Your task to perform on an android device: open app "Move to iOS" (install if not already installed) and go to login screen Image 0: 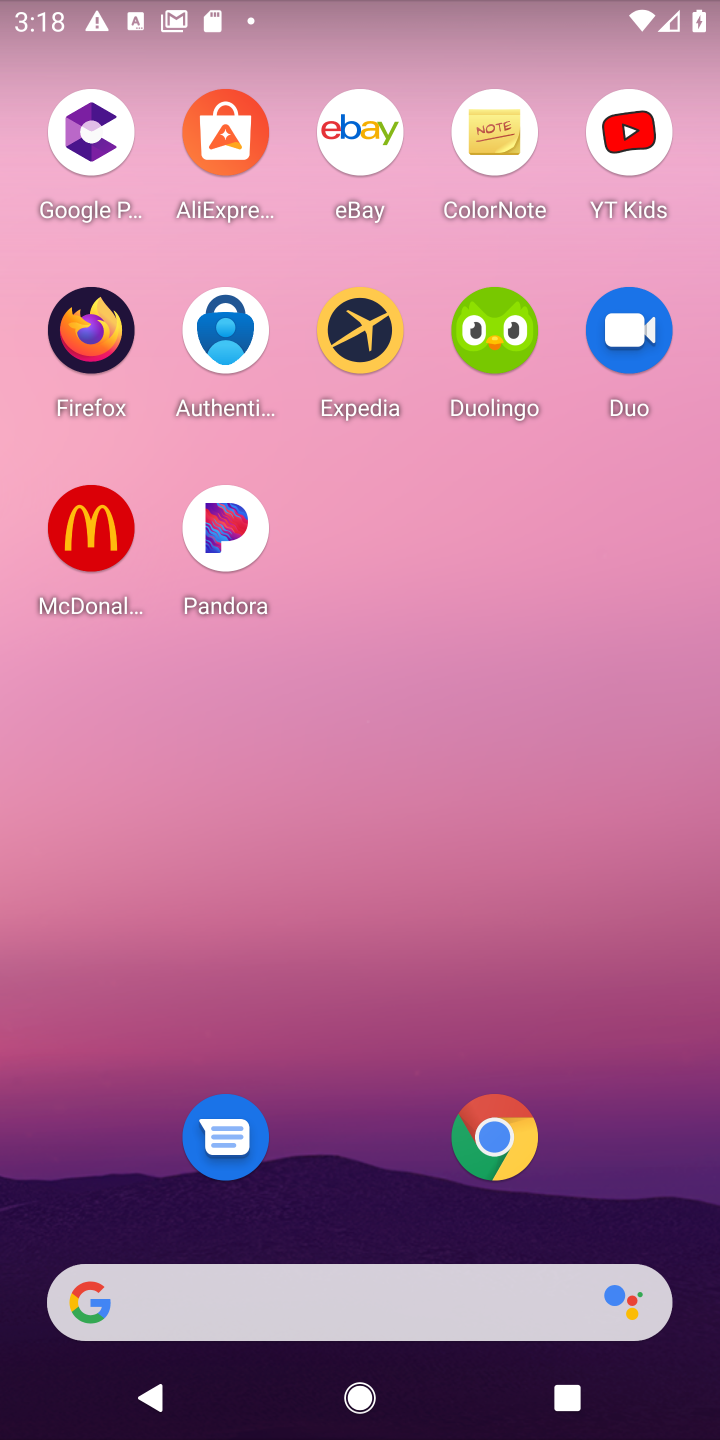
Step 0: drag from (364, 978) to (458, 116)
Your task to perform on an android device: open app "Move to iOS" (install if not already installed) and go to login screen Image 1: 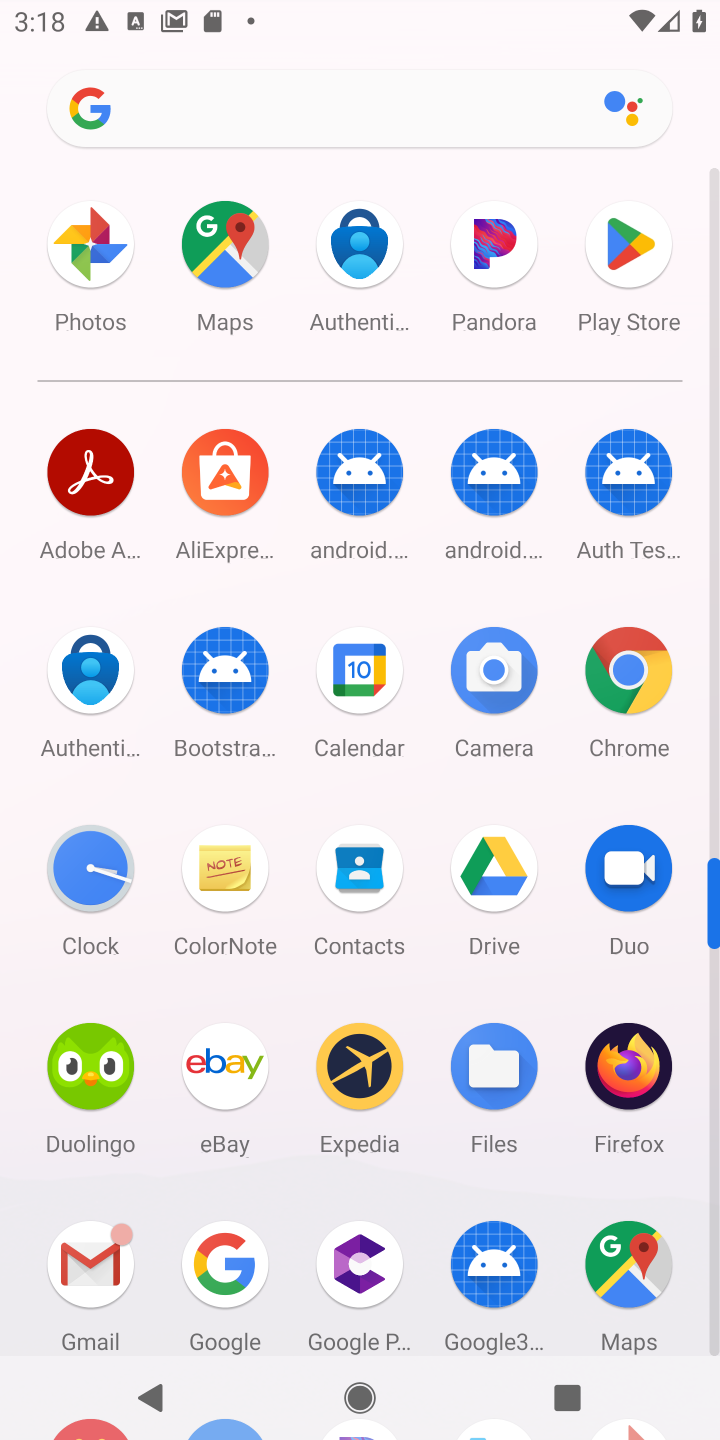
Step 1: click (645, 344)
Your task to perform on an android device: open app "Move to iOS" (install if not already installed) and go to login screen Image 2: 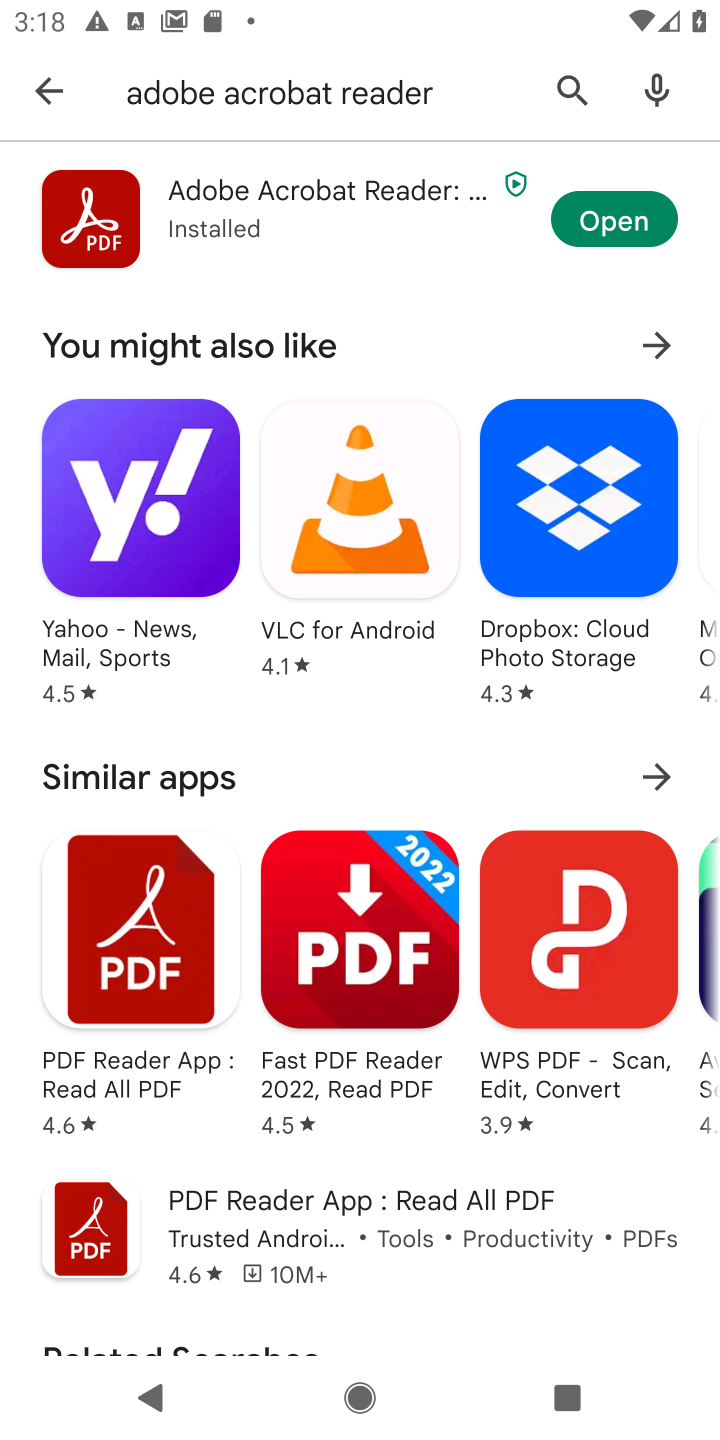
Step 2: click (380, 177)
Your task to perform on an android device: open app "Move to iOS" (install if not already installed) and go to login screen Image 3: 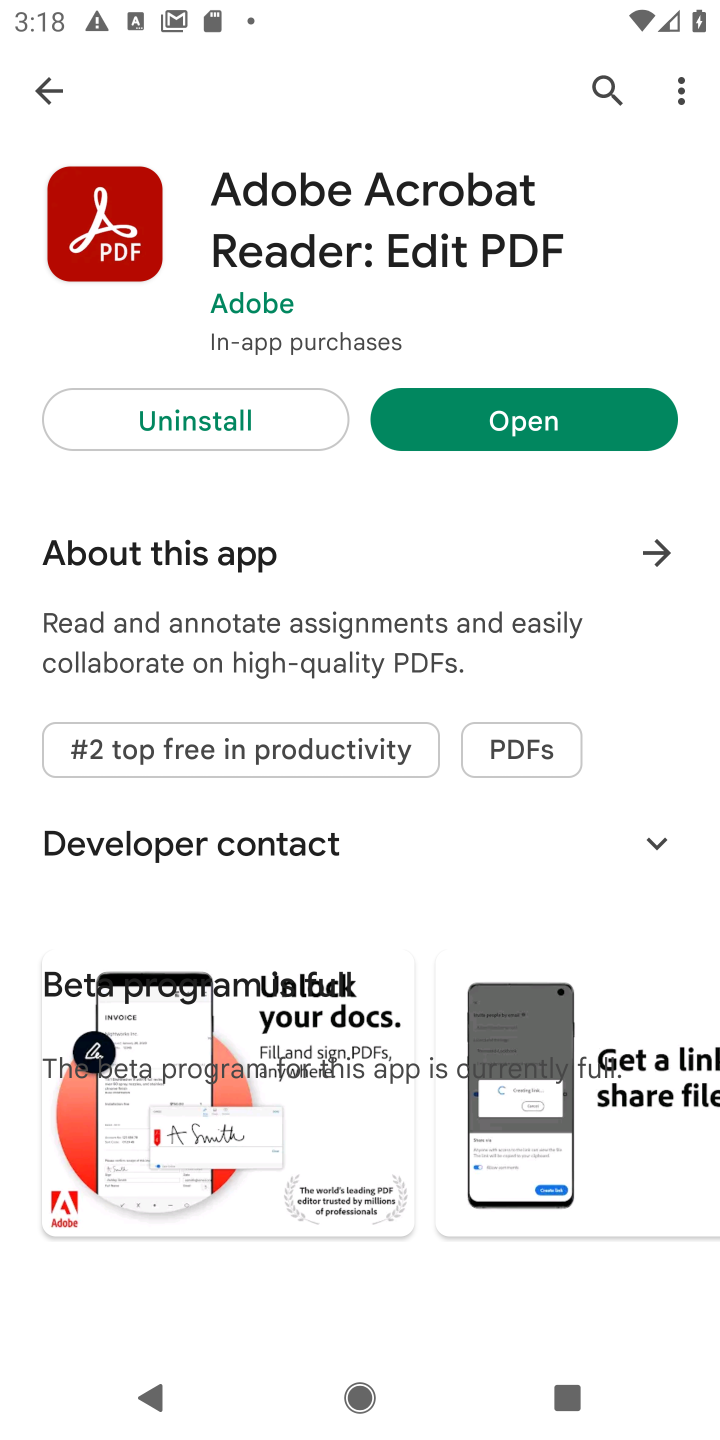
Step 3: click (372, 95)
Your task to perform on an android device: open app "Move to iOS" (install if not already installed) and go to login screen Image 4: 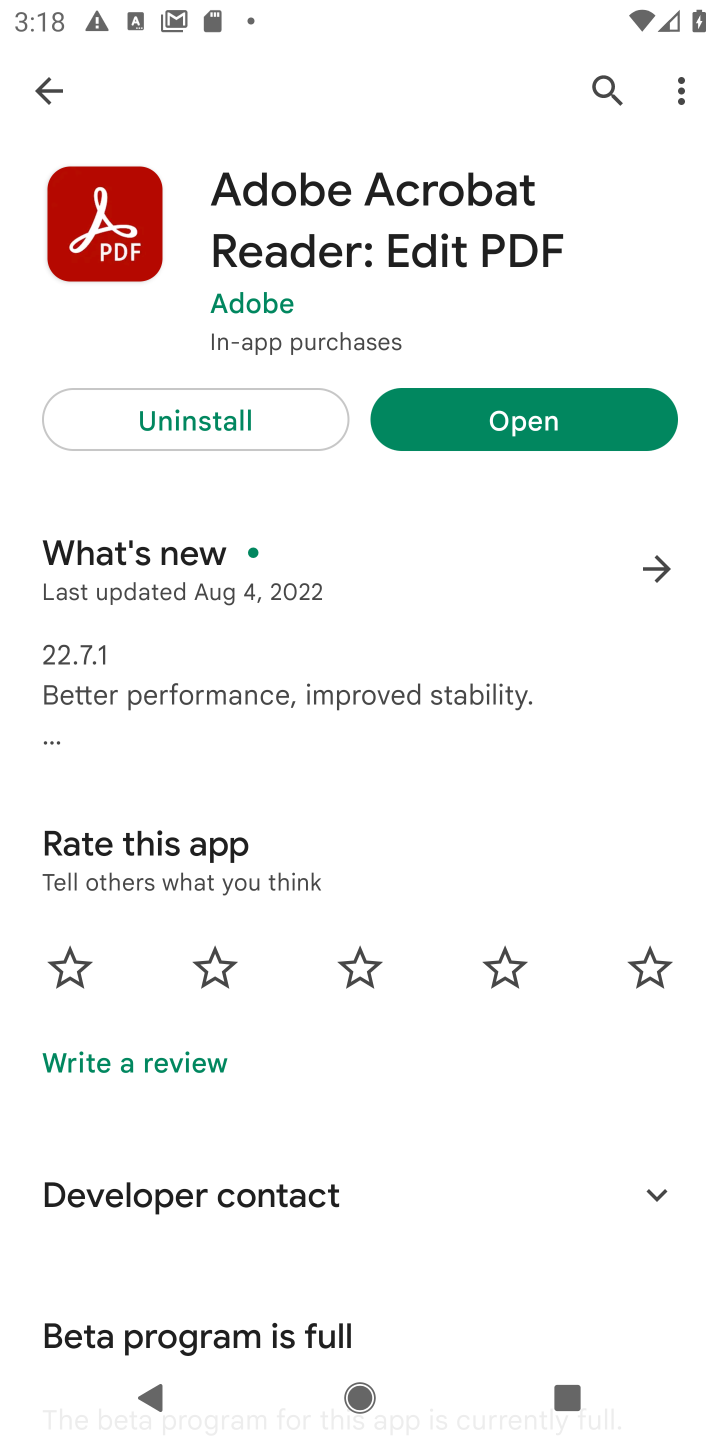
Step 4: click (52, 87)
Your task to perform on an android device: open app "Move to iOS" (install if not already installed) and go to login screen Image 5: 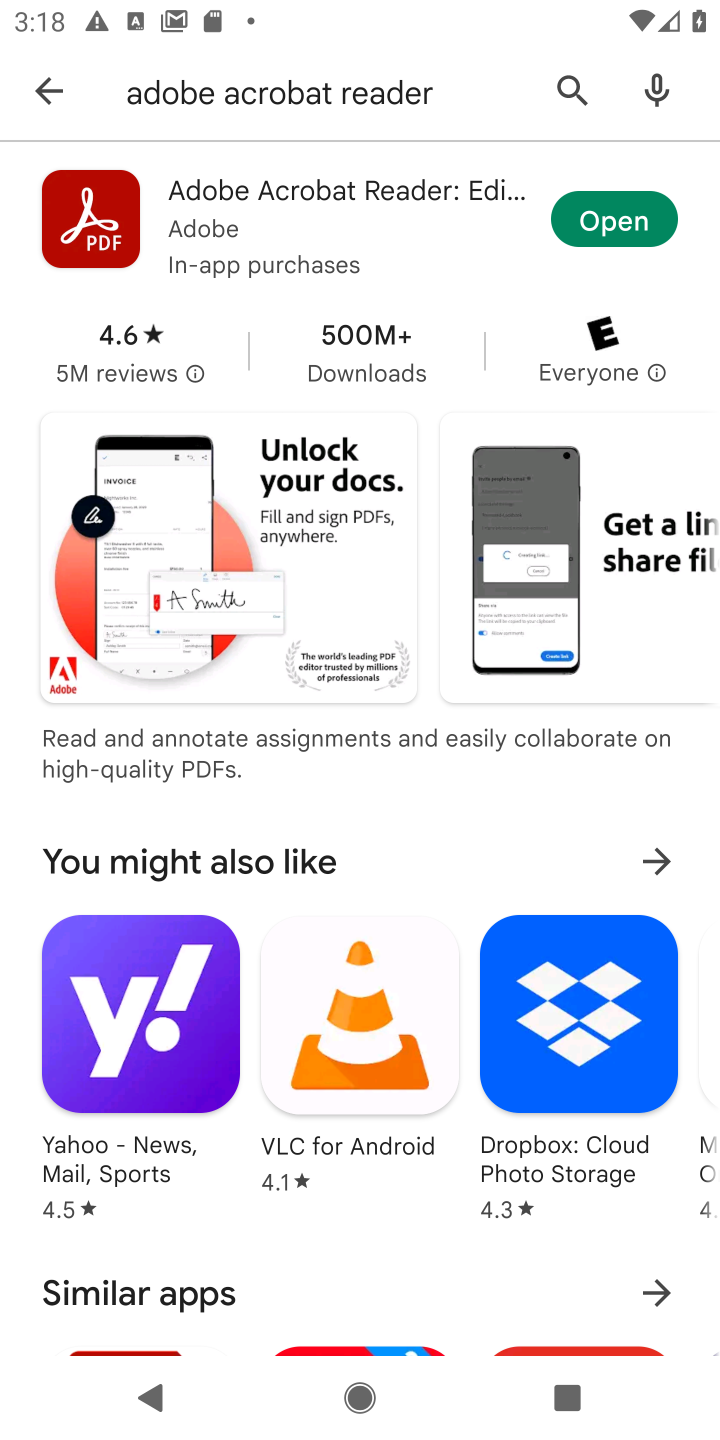
Step 5: click (243, 89)
Your task to perform on an android device: open app "Move to iOS" (install if not already installed) and go to login screen Image 6: 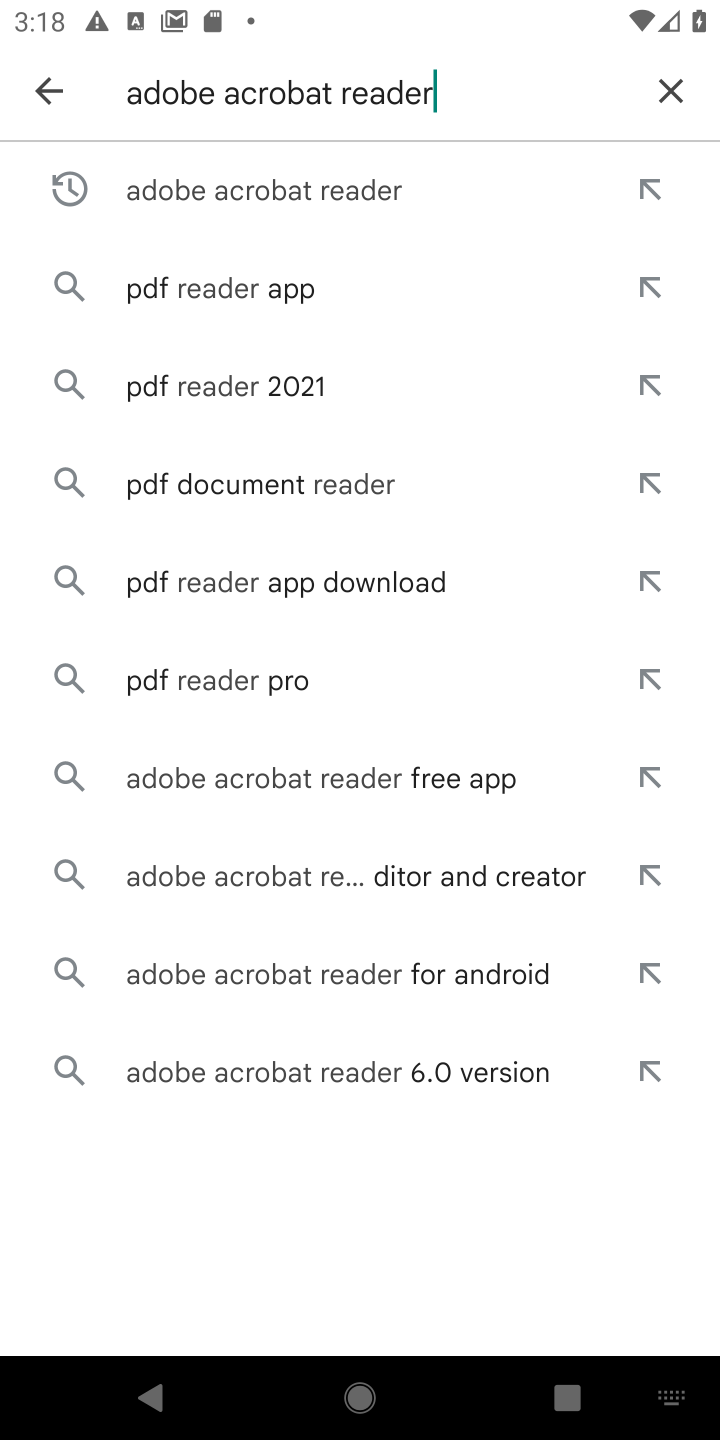
Step 6: click (665, 91)
Your task to perform on an android device: open app "Move to iOS" (install if not already installed) and go to login screen Image 7: 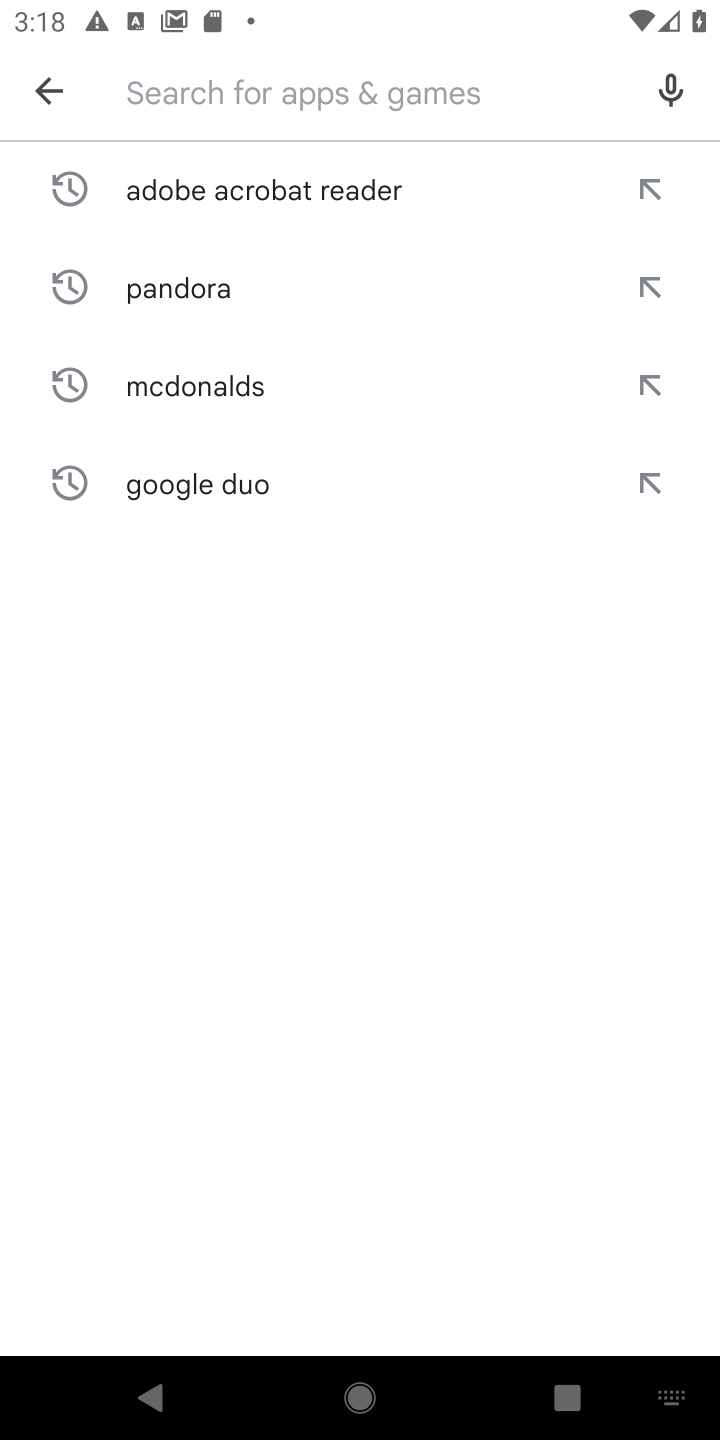
Step 7: type "move to IOS"
Your task to perform on an android device: open app "Move to iOS" (install if not already installed) and go to login screen Image 8: 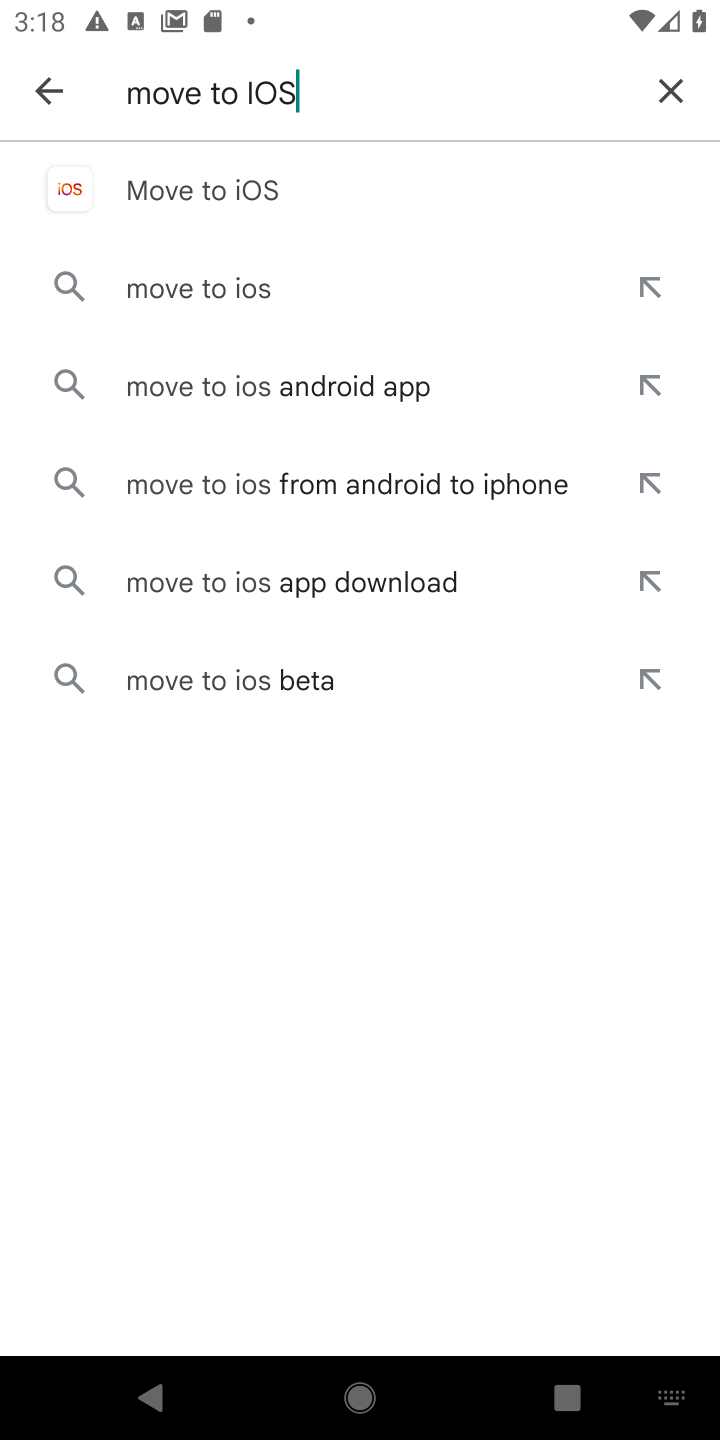
Step 8: click (264, 198)
Your task to perform on an android device: open app "Move to iOS" (install if not already installed) and go to login screen Image 9: 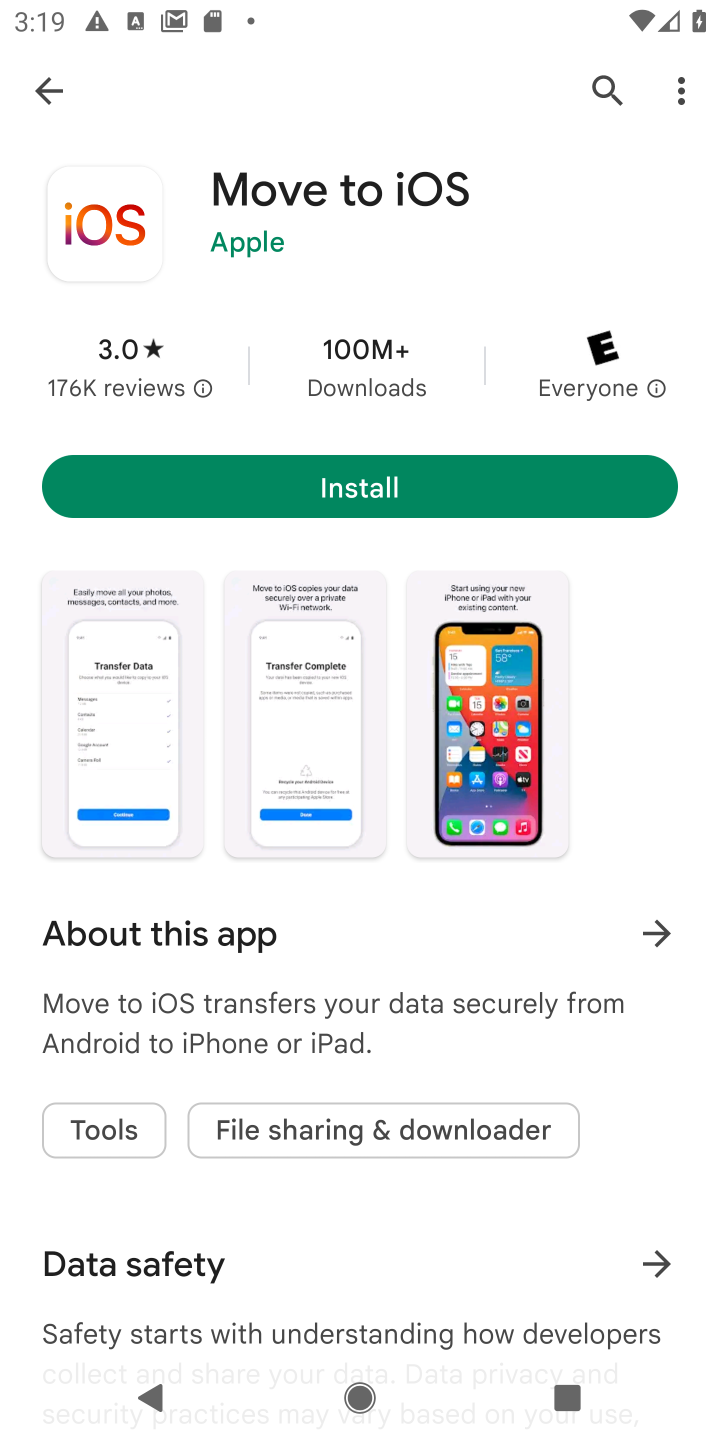
Step 9: click (426, 486)
Your task to perform on an android device: open app "Move to iOS" (install if not already installed) and go to login screen Image 10: 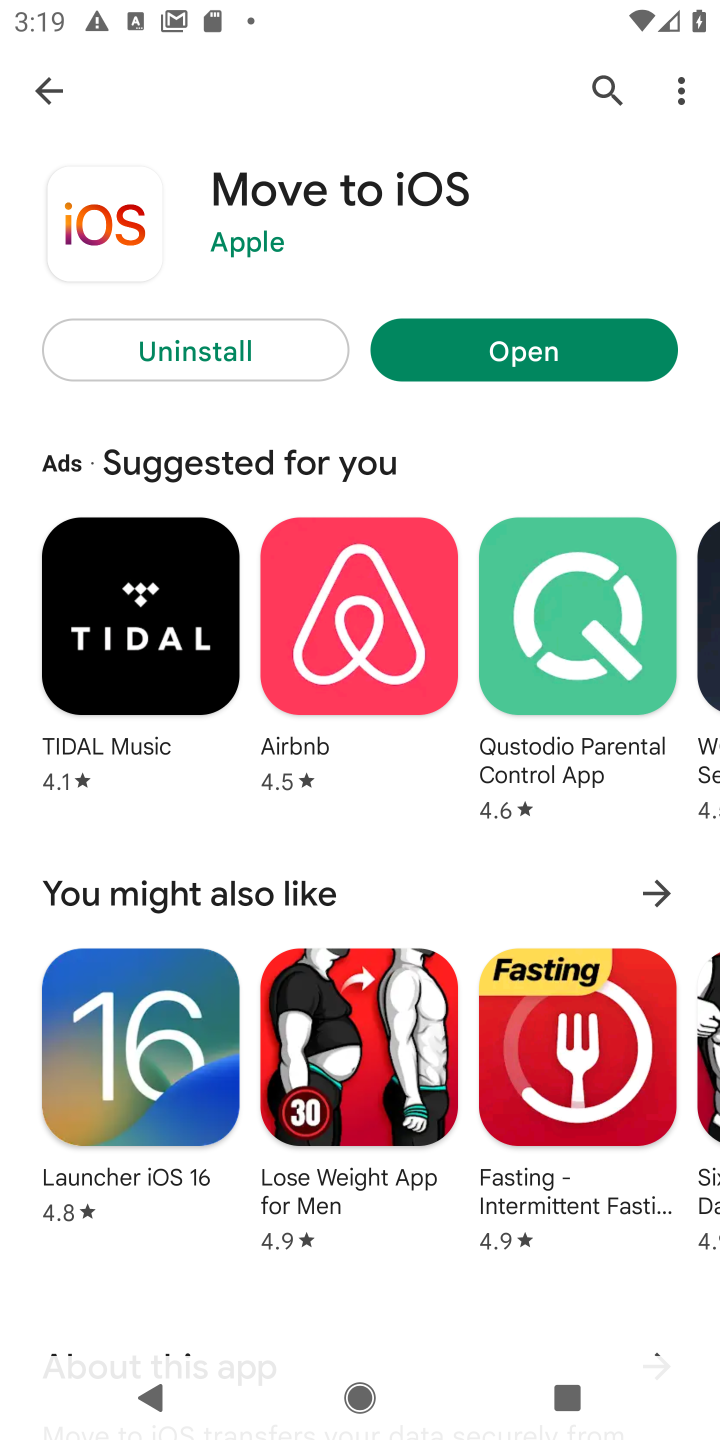
Step 10: click (556, 312)
Your task to perform on an android device: open app "Move to iOS" (install if not already installed) and go to login screen Image 11: 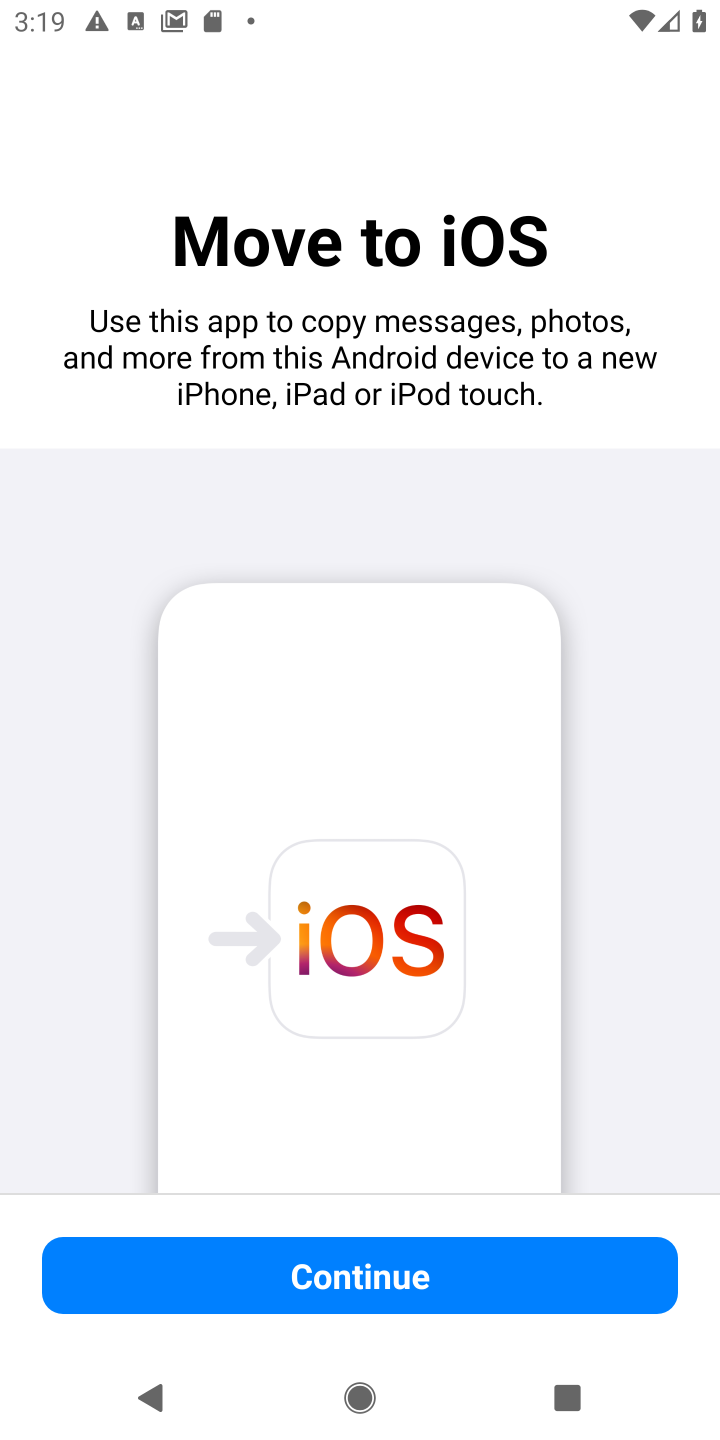
Step 11: task complete